Your task to perform on an android device: Add "logitech g933" to the cart on target Image 0: 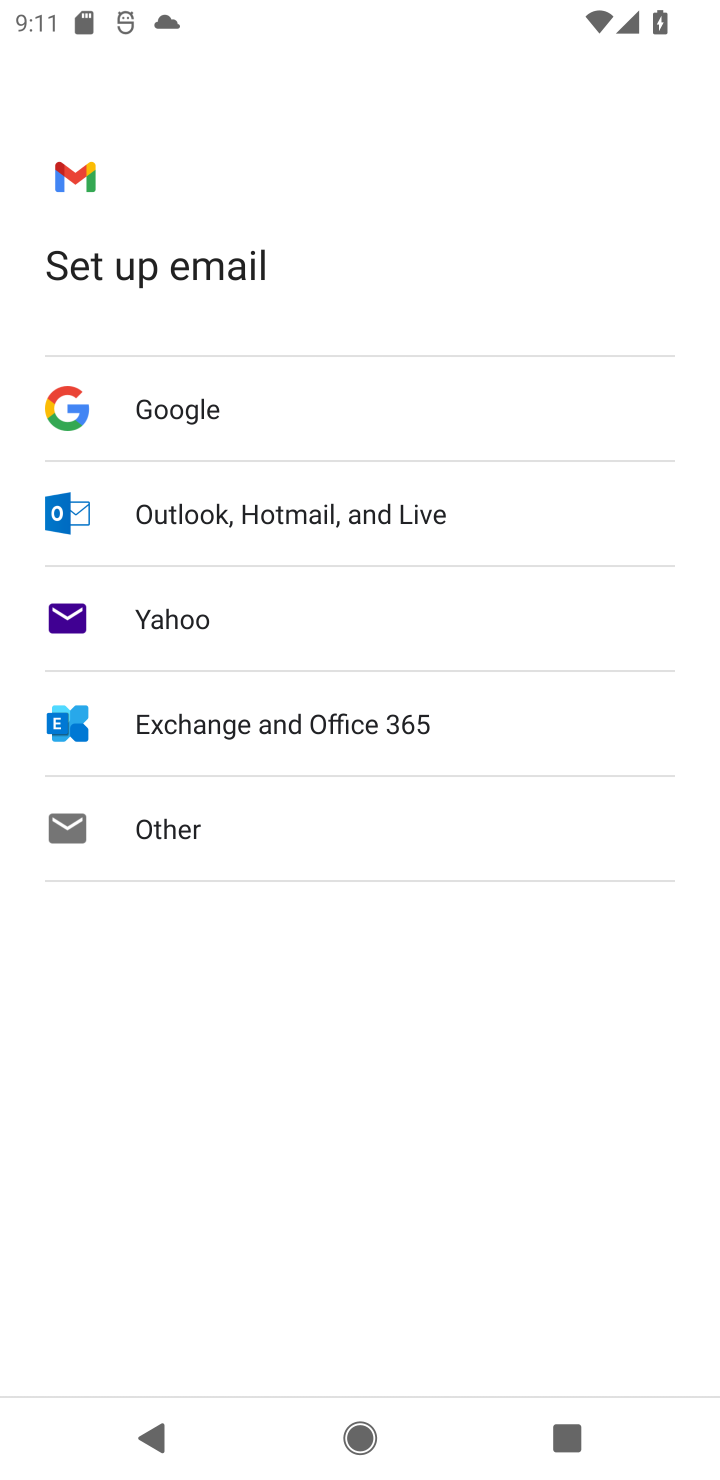
Step 0: press home button
Your task to perform on an android device: Add "logitech g933" to the cart on target Image 1: 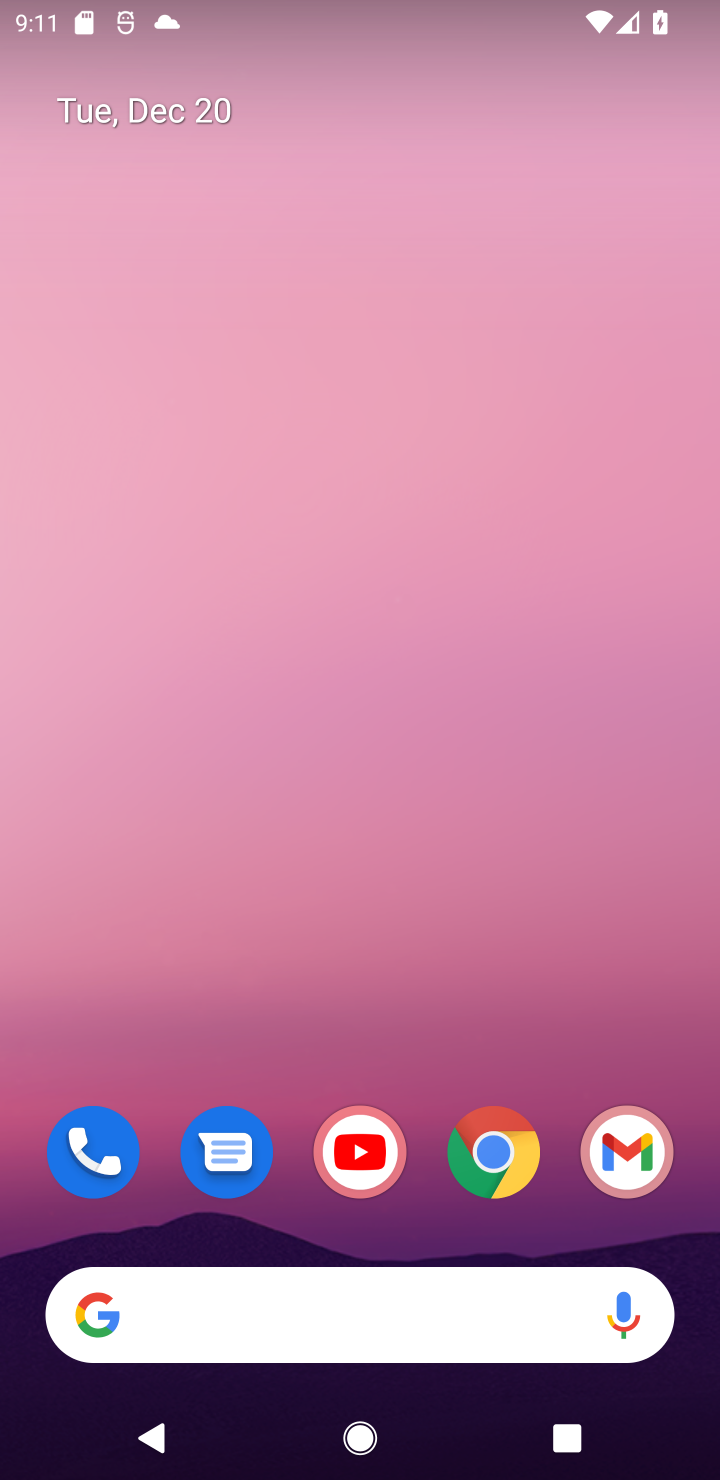
Step 1: click (477, 1152)
Your task to perform on an android device: Add "logitech g933" to the cart on target Image 2: 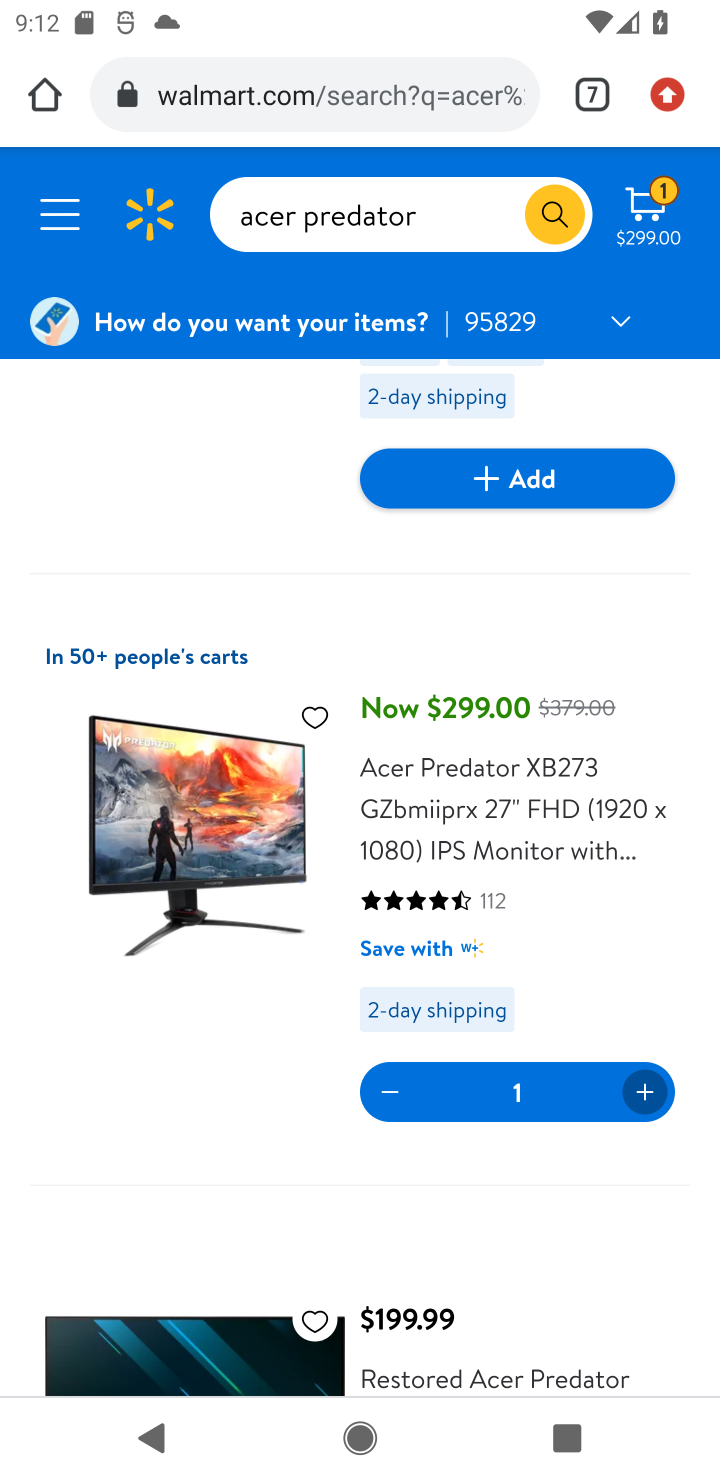
Step 2: click (597, 89)
Your task to perform on an android device: Add "logitech g933" to the cart on target Image 3: 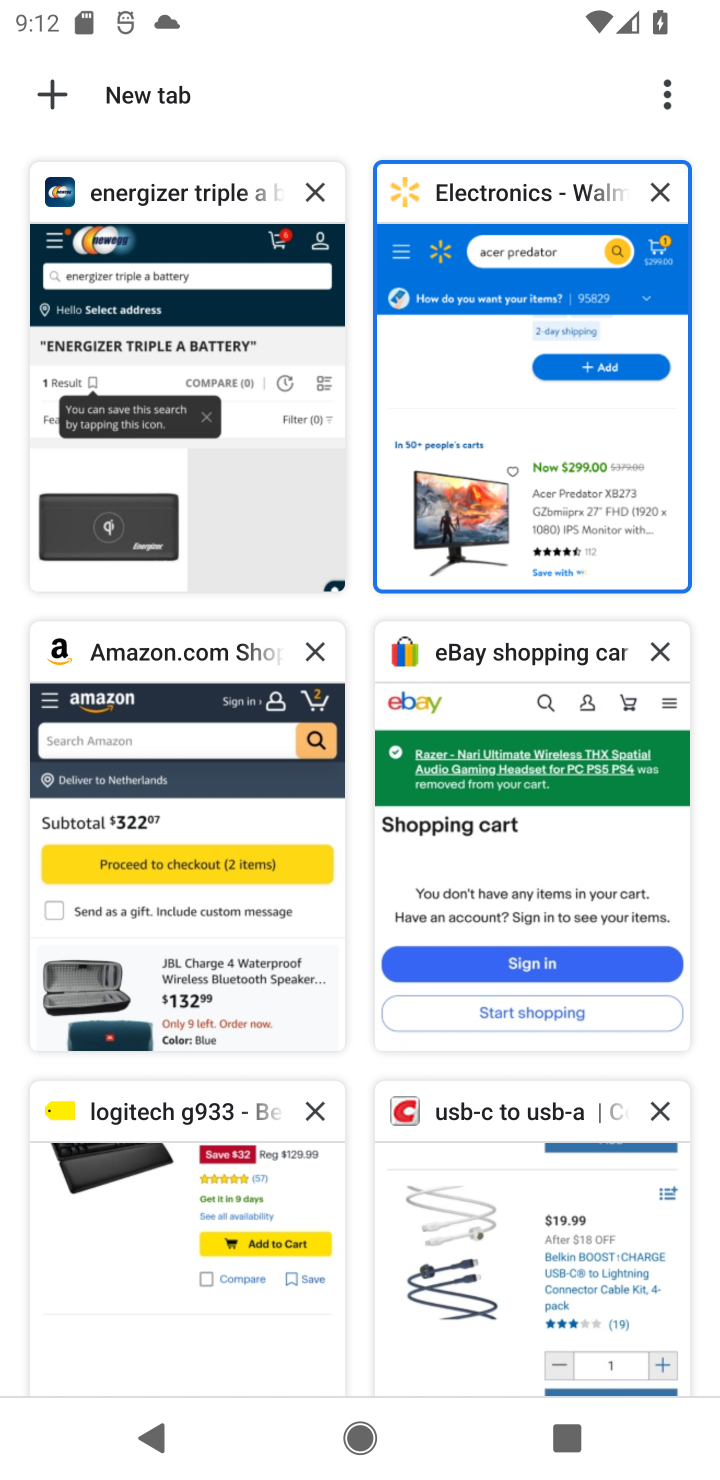
Step 3: drag from (241, 1273) to (320, 536)
Your task to perform on an android device: Add "logitech g933" to the cart on target Image 4: 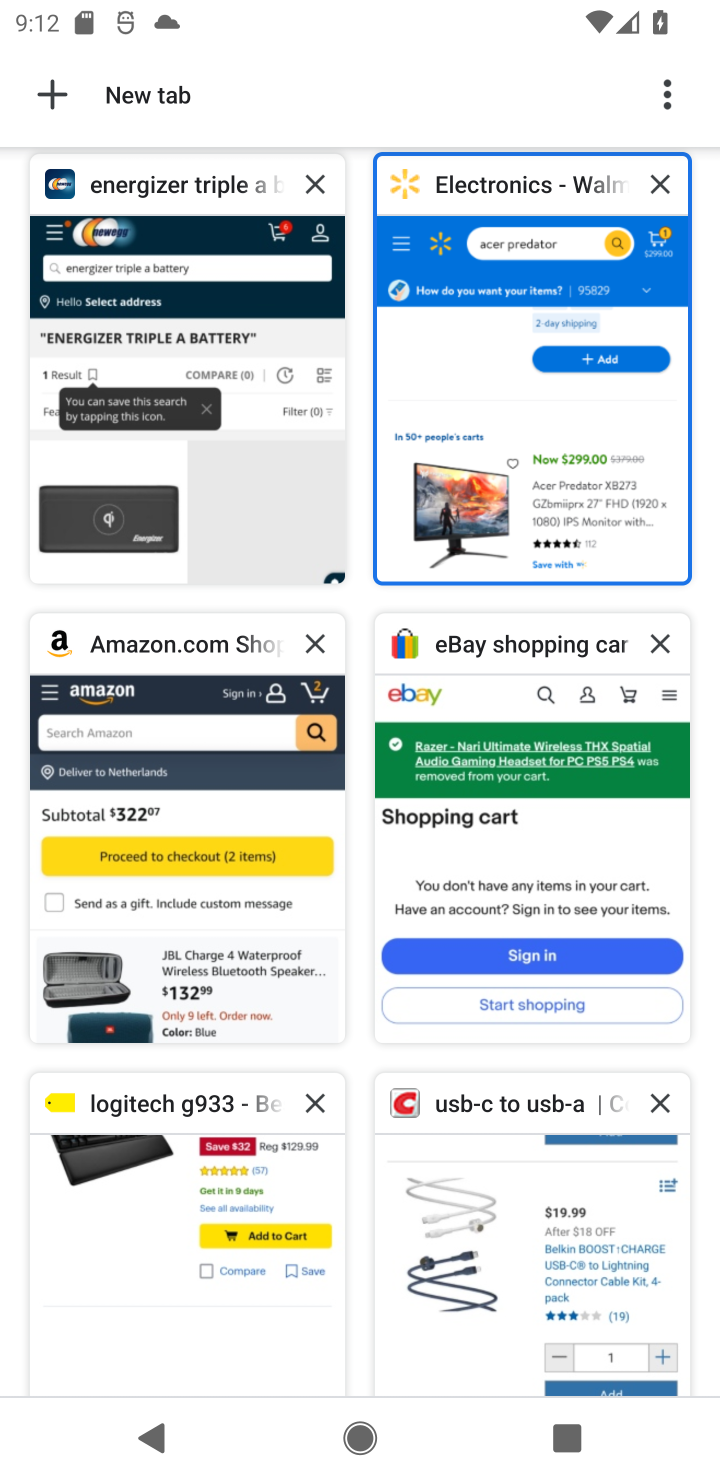
Step 4: drag from (394, 1316) to (493, 605)
Your task to perform on an android device: Add "logitech g933" to the cart on target Image 5: 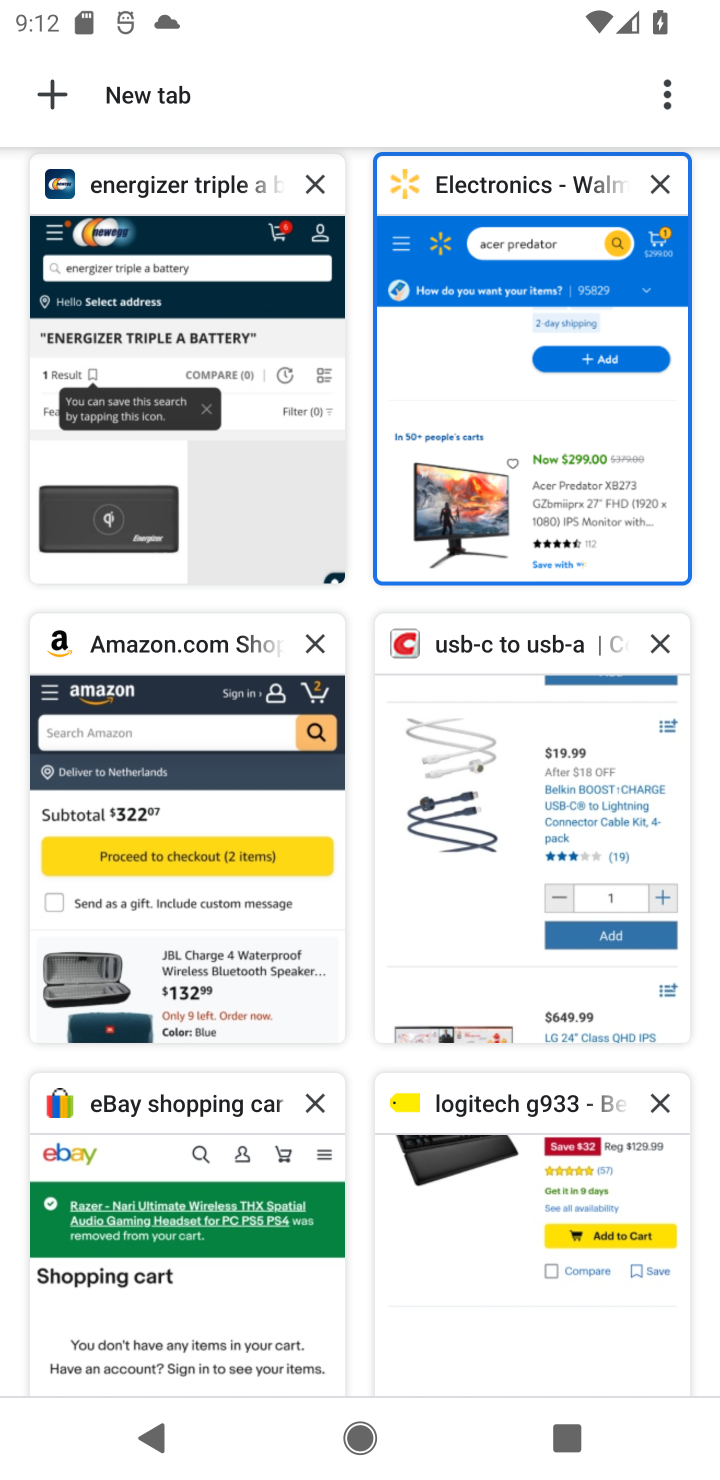
Step 5: drag from (436, 1191) to (541, 346)
Your task to perform on an android device: Add "logitech g933" to the cart on target Image 6: 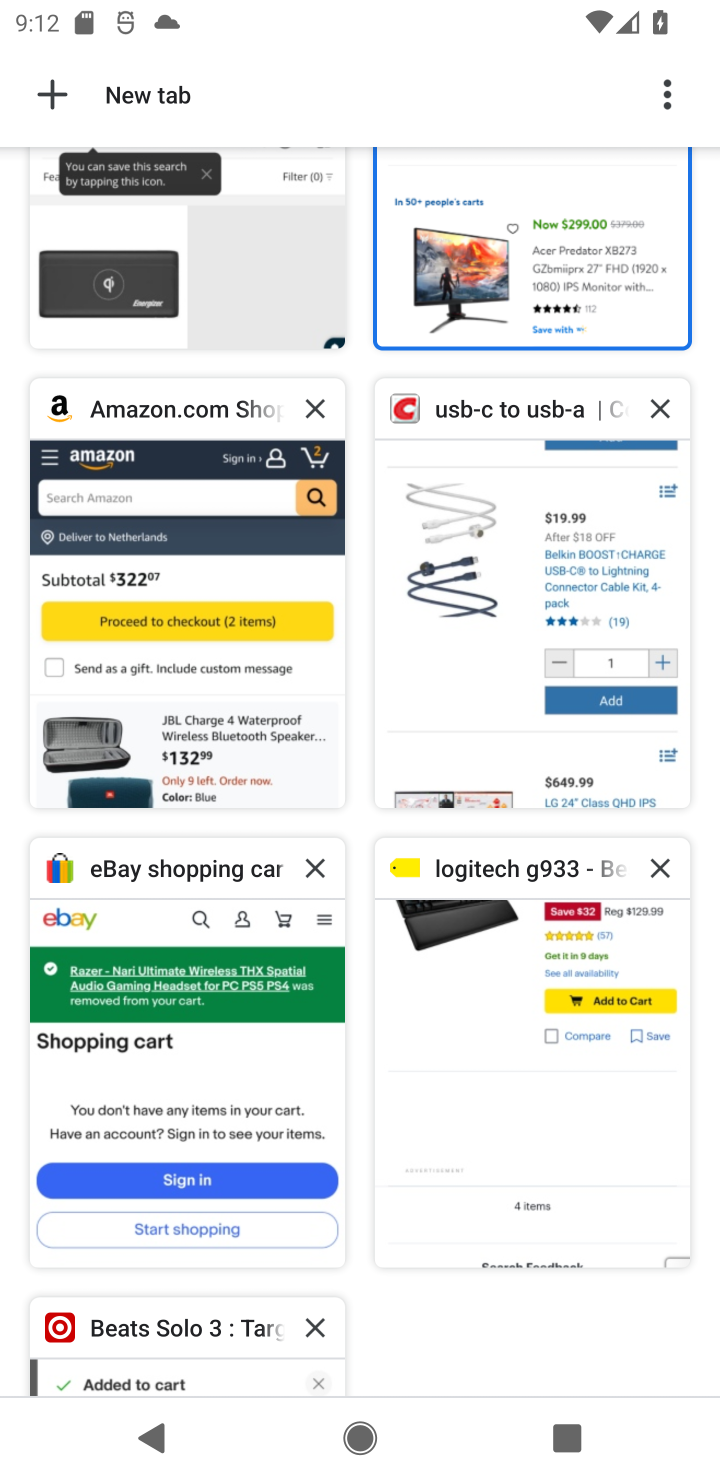
Step 6: click (186, 1400)
Your task to perform on an android device: Add "logitech g933" to the cart on target Image 7: 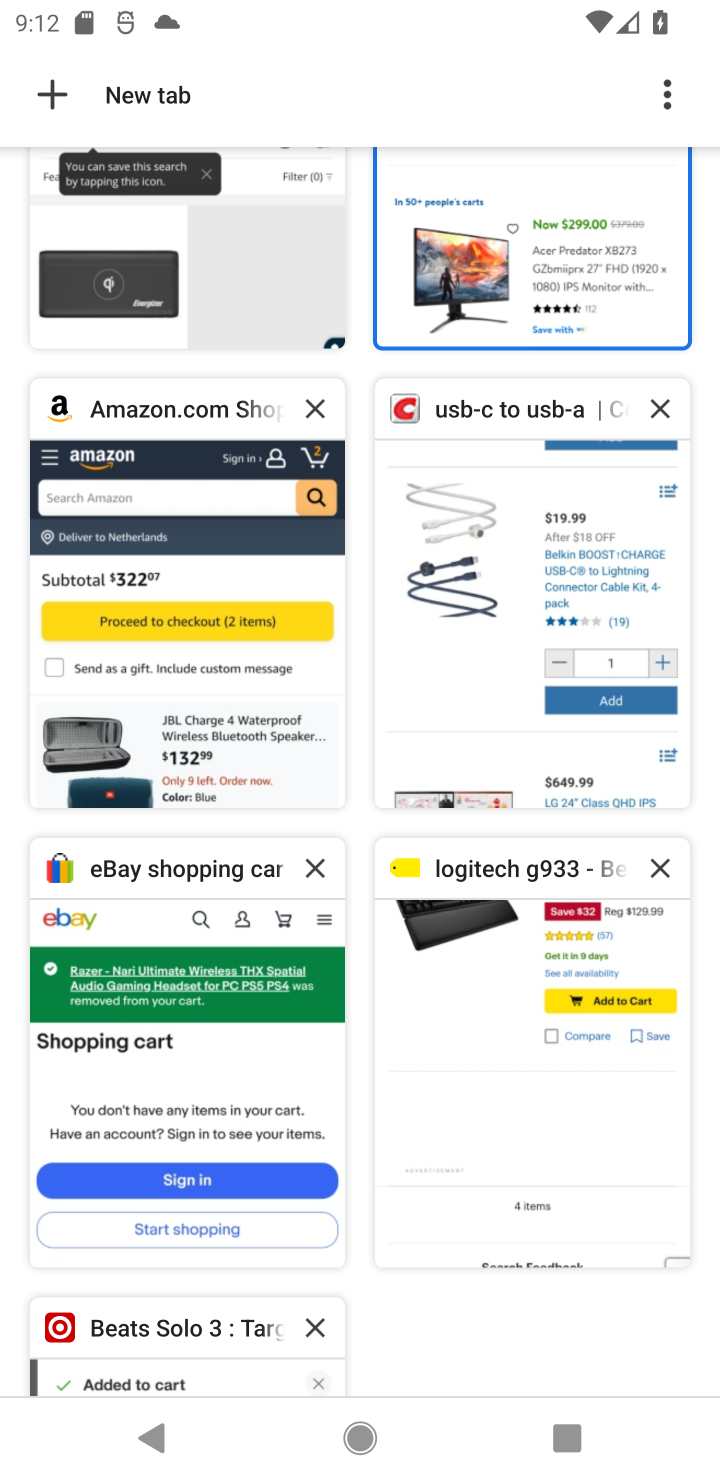
Step 7: click (149, 1337)
Your task to perform on an android device: Add "logitech g933" to the cart on target Image 8: 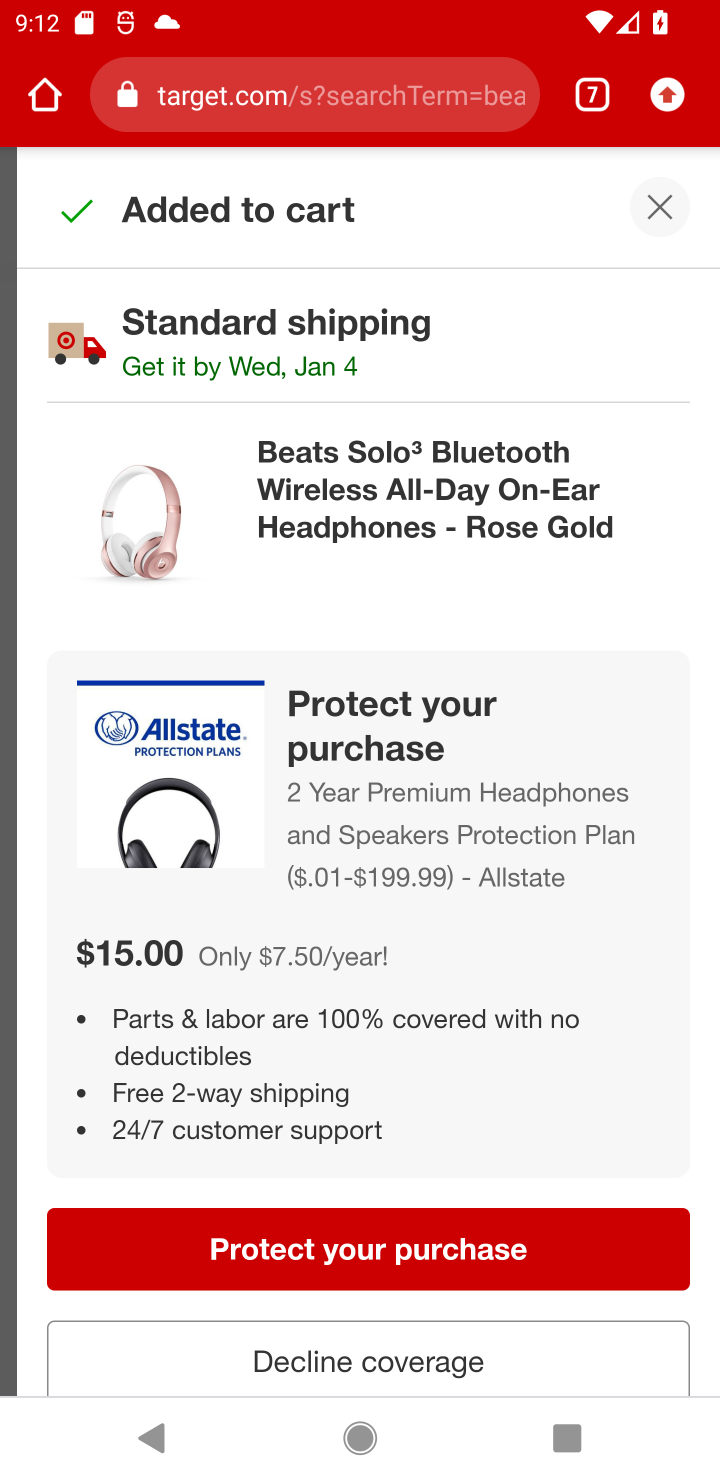
Step 8: click (660, 210)
Your task to perform on an android device: Add "logitech g933" to the cart on target Image 9: 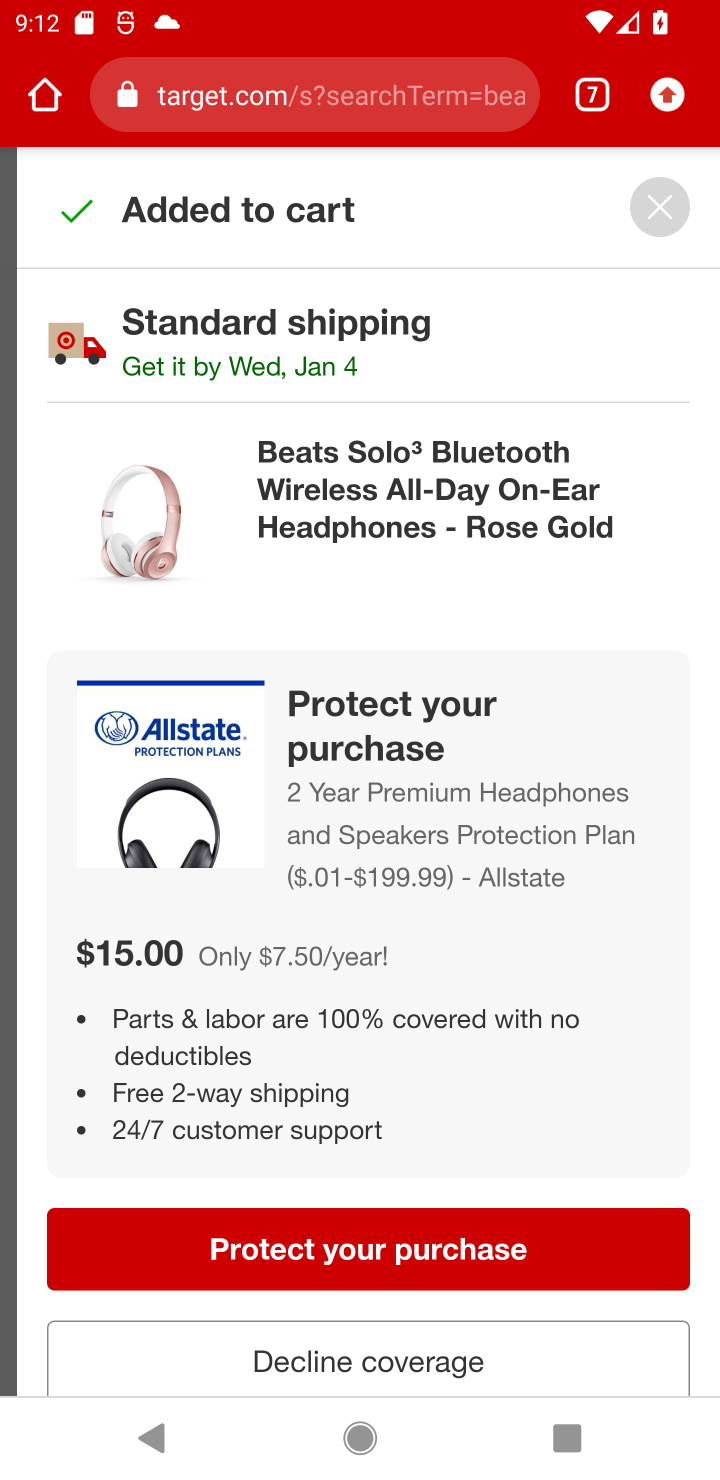
Step 9: click (660, 210)
Your task to perform on an android device: Add "logitech g933" to the cart on target Image 10: 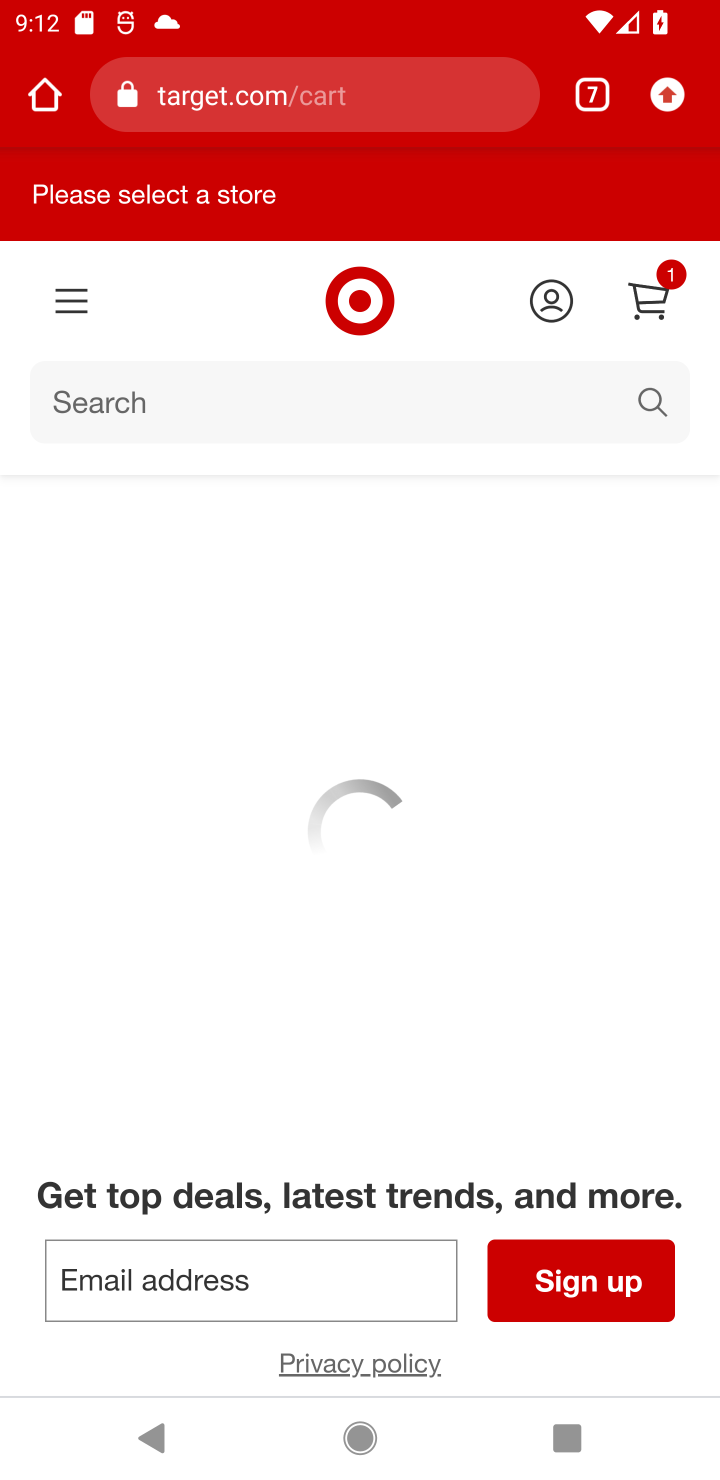
Step 10: click (334, 406)
Your task to perform on an android device: Add "logitech g933" to the cart on target Image 11: 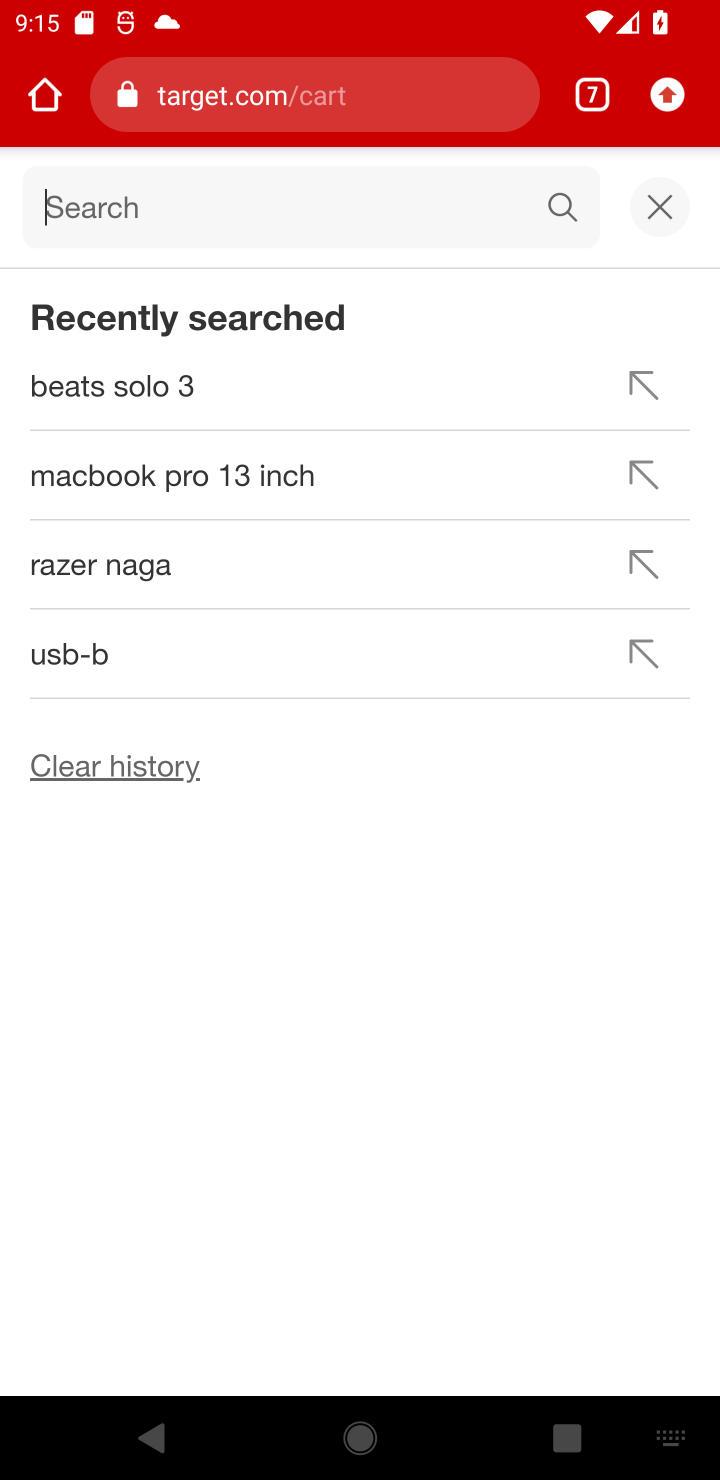
Step 11: type "logitech g933"
Your task to perform on an android device: Add "logitech g933" to the cart on target Image 12: 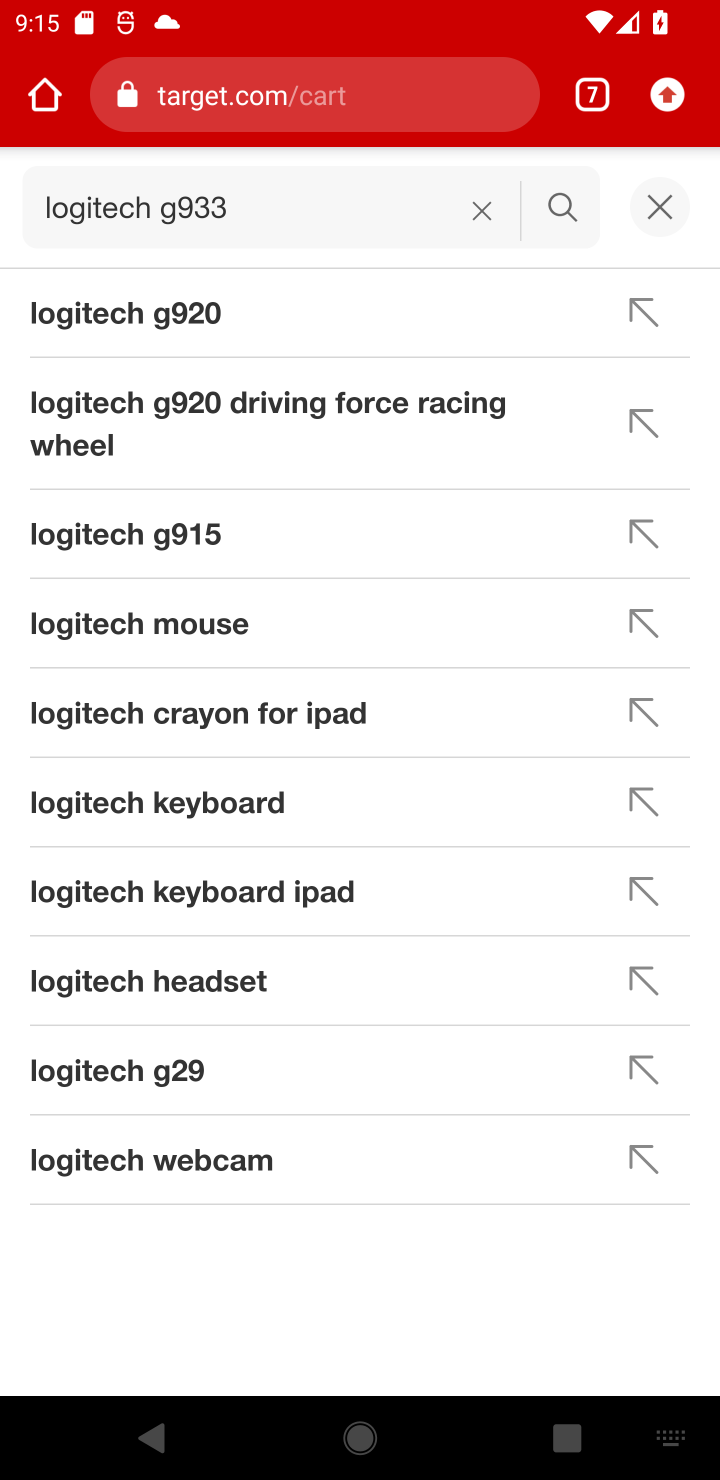
Step 12: click (553, 208)
Your task to perform on an android device: Add "logitech g933" to the cart on target Image 13: 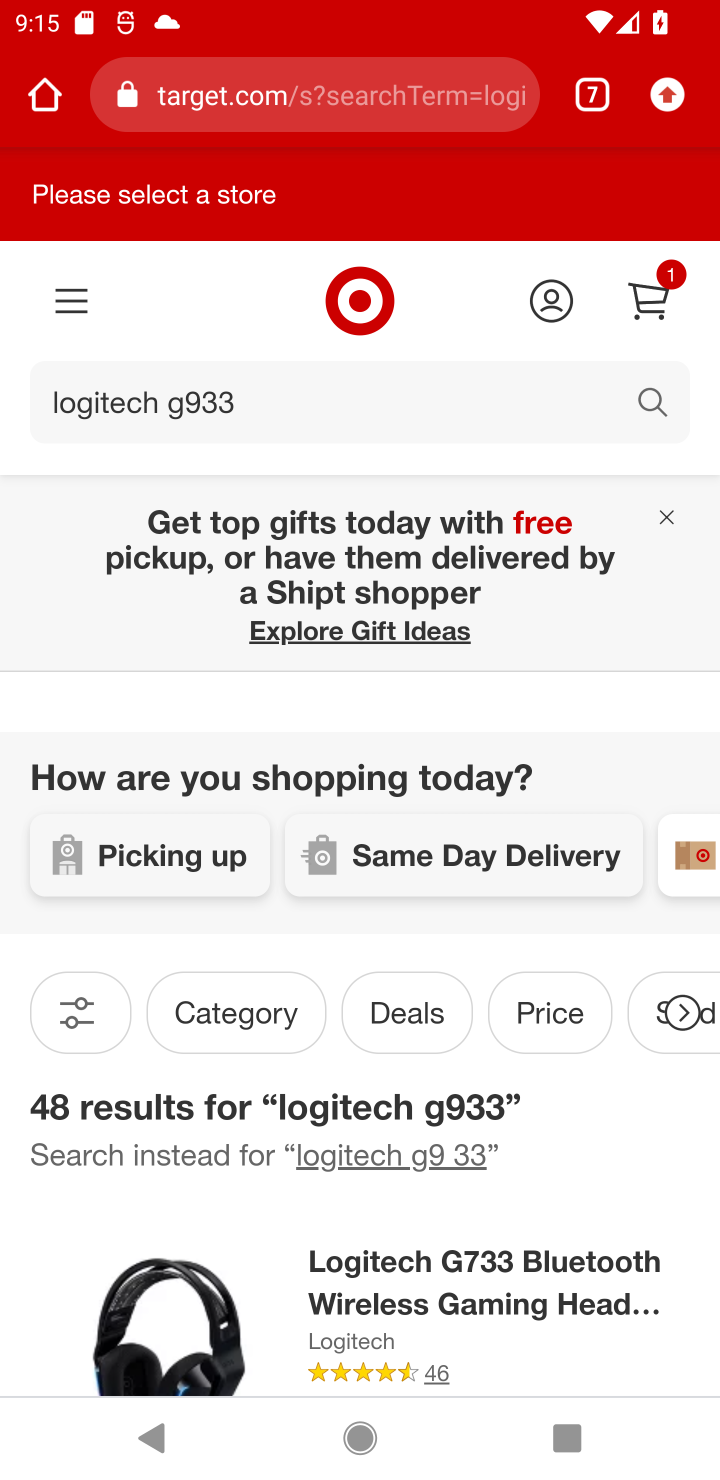
Step 13: drag from (441, 1280) to (461, 120)
Your task to perform on an android device: Add "logitech g933" to the cart on target Image 14: 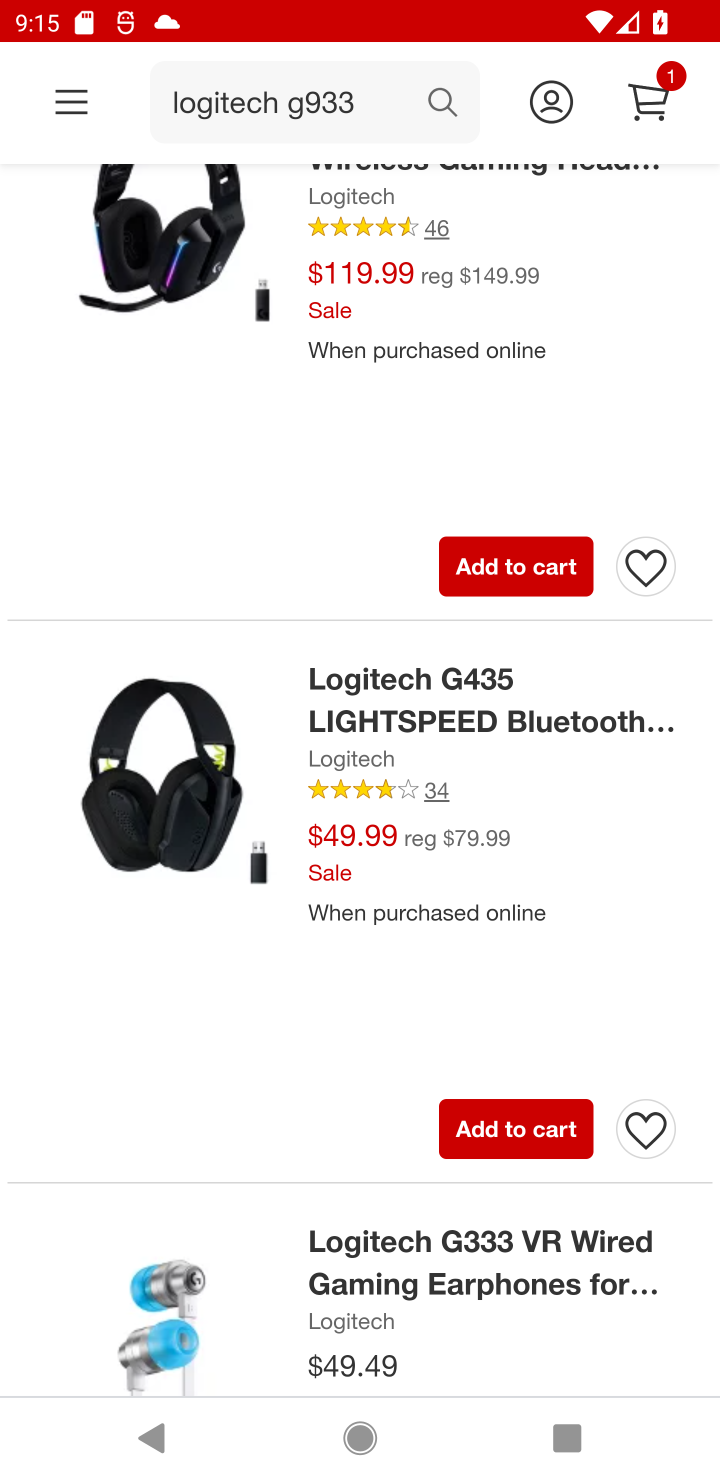
Step 14: click (529, 551)
Your task to perform on an android device: Add "logitech g933" to the cart on target Image 15: 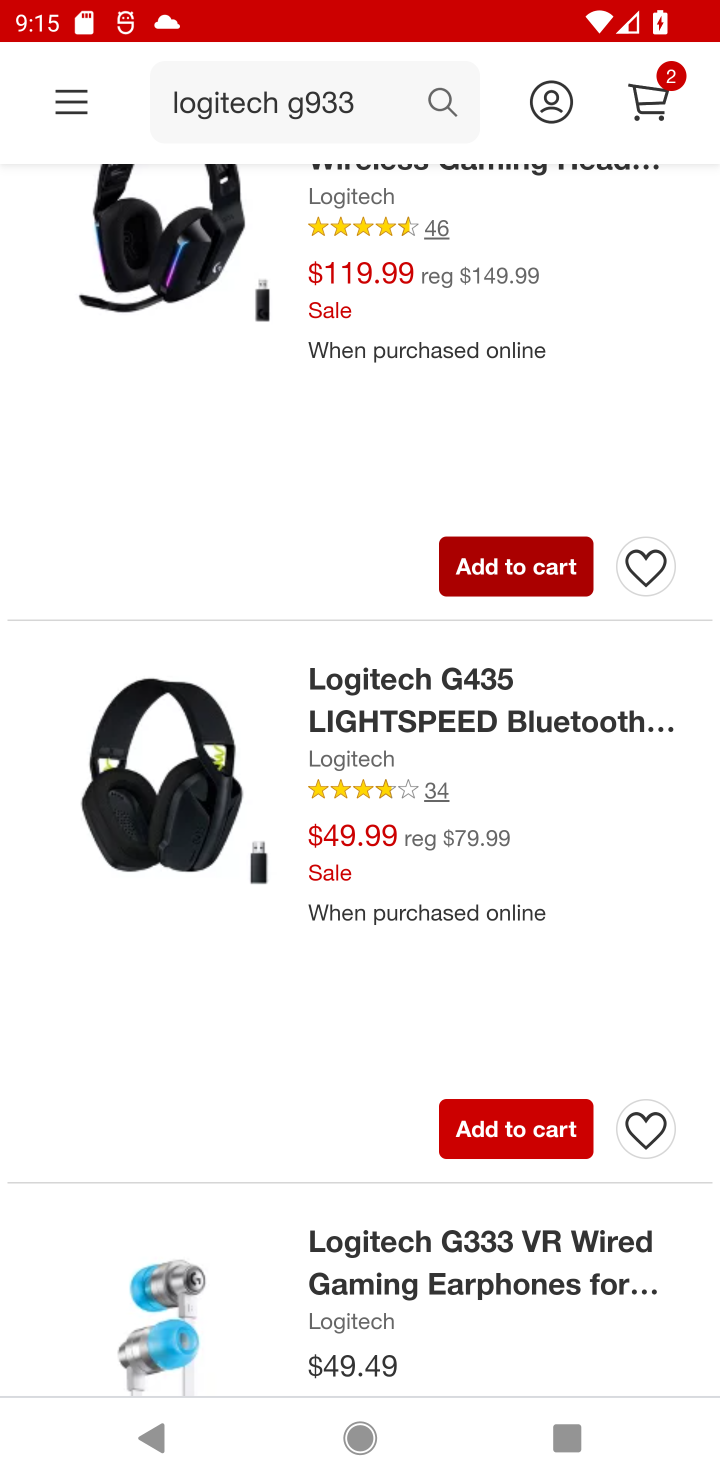
Step 15: task complete